Your task to perform on an android device: change timer sound Image 0: 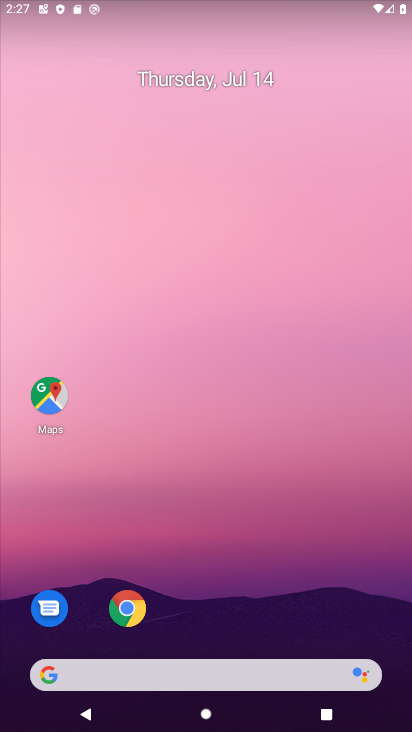
Step 0: click (147, 679)
Your task to perform on an android device: change timer sound Image 1: 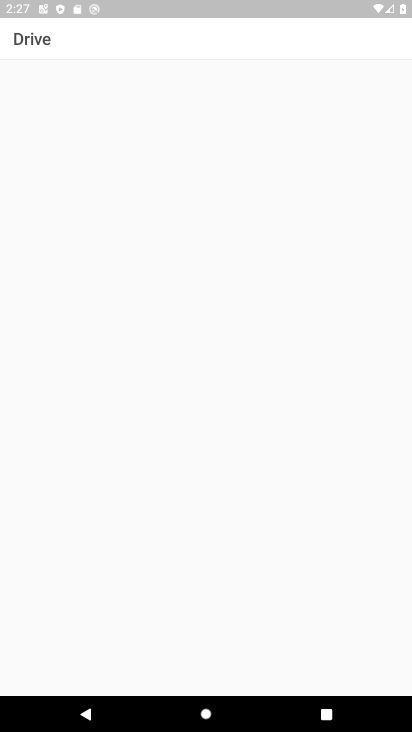
Step 1: press back button
Your task to perform on an android device: change timer sound Image 2: 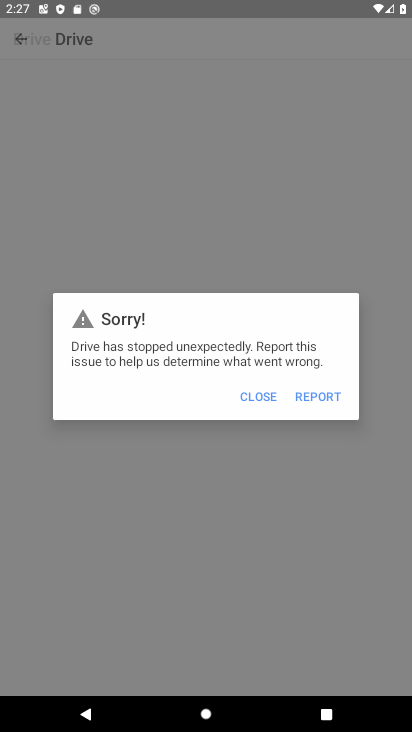
Step 2: press home button
Your task to perform on an android device: change timer sound Image 3: 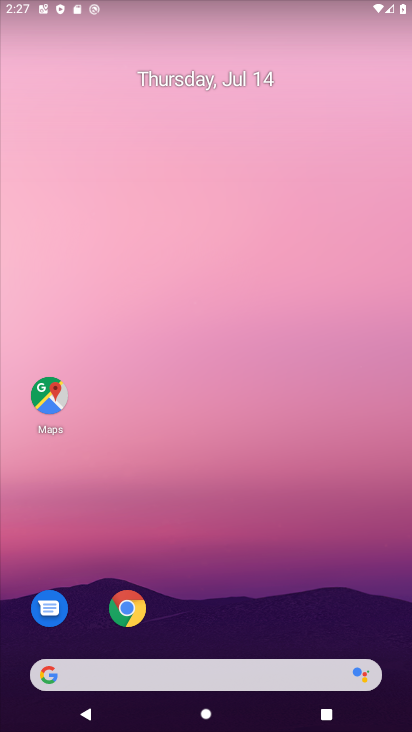
Step 3: drag from (260, 523) to (339, 20)
Your task to perform on an android device: change timer sound Image 4: 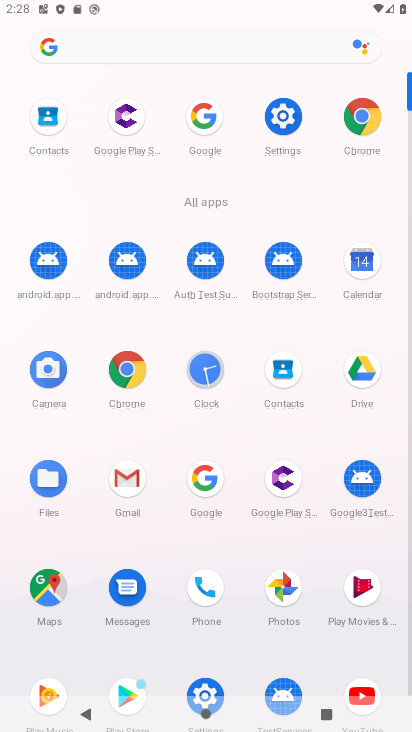
Step 4: click (206, 377)
Your task to perform on an android device: change timer sound Image 5: 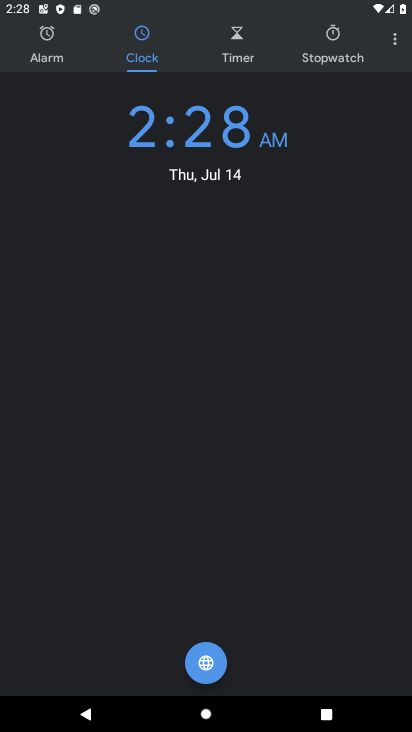
Step 5: click (395, 38)
Your task to perform on an android device: change timer sound Image 6: 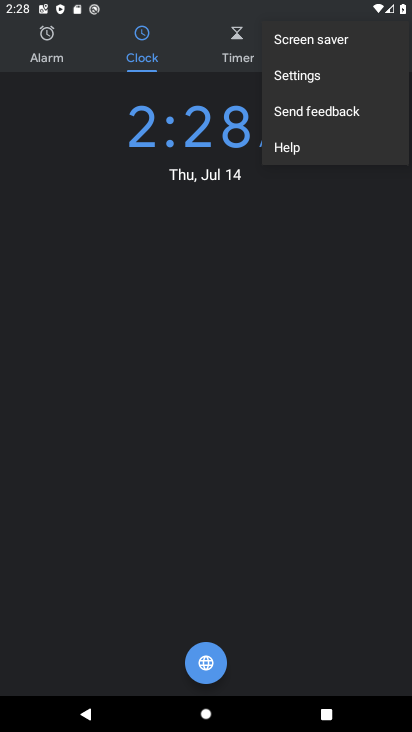
Step 6: click (291, 88)
Your task to perform on an android device: change timer sound Image 7: 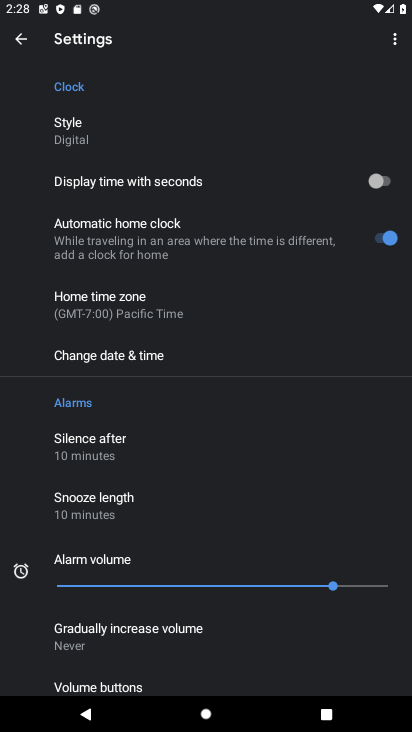
Step 7: drag from (175, 492) to (216, 81)
Your task to perform on an android device: change timer sound Image 8: 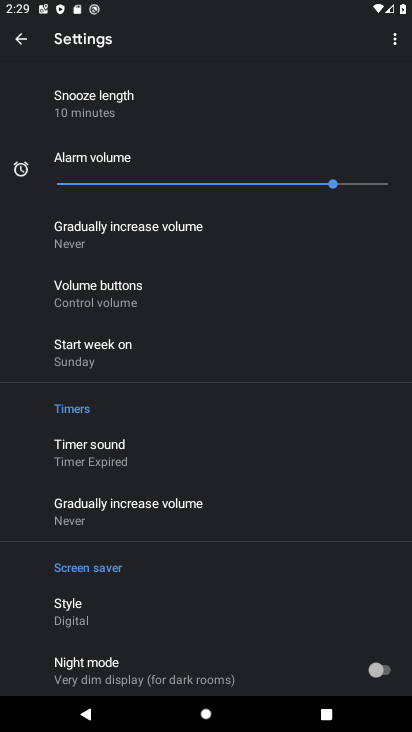
Step 8: click (111, 444)
Your task to perform on an android device: change timer sound Image 9: 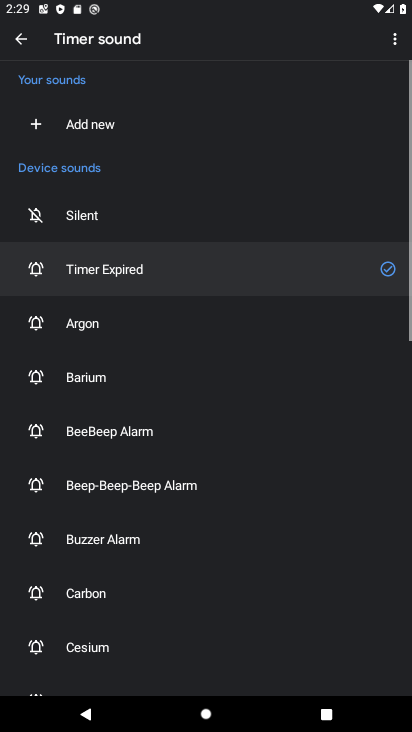
Step 9: click (88, 321)
Your task to perform on an android device: change timer sound Image 10: 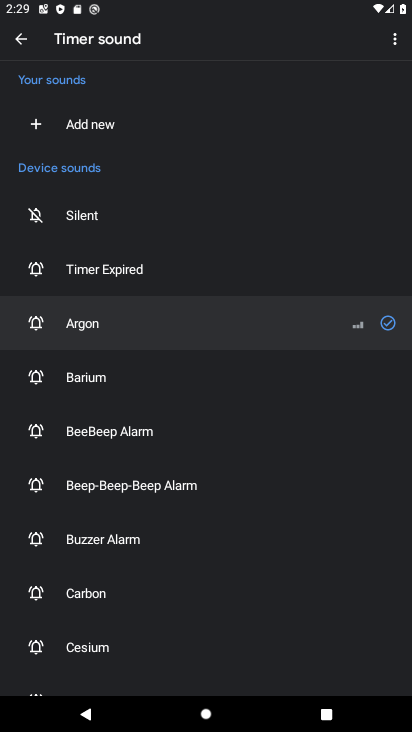
Step 10: task complete